Your task to perform on an android device: set the stopwatch Image 0: 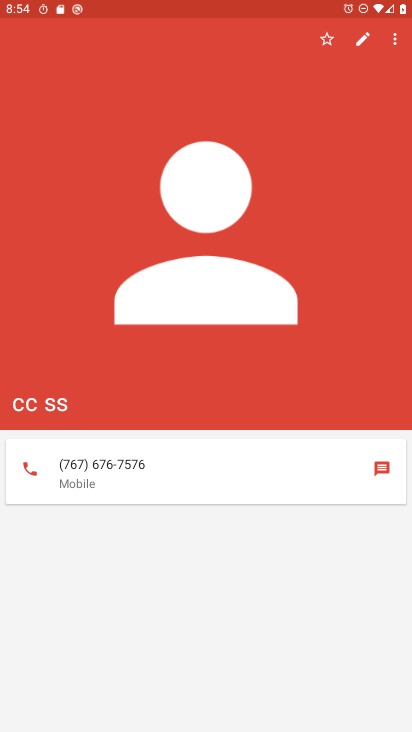
Step 0: press home button
Your task to perform on an android device: set the stopwatch Image 1: 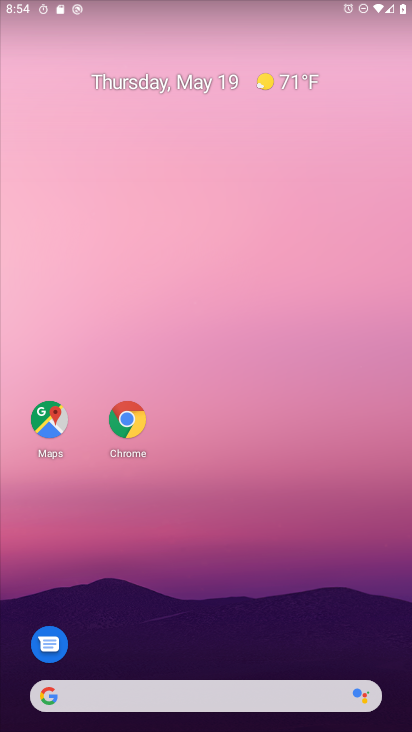
Step 1: drag from (167, 681) to (237, 312)
Your task to perform on an android device: set the stopwatch Image 2: 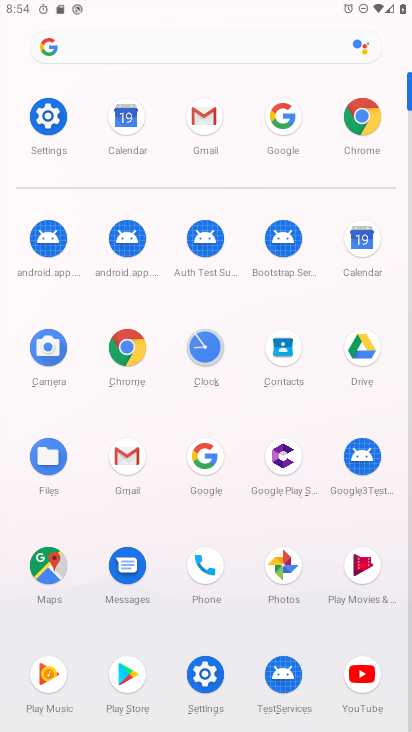
Step 2: click (205, 352)
Your task to perform on an android device: set the stopwatch Image 3: 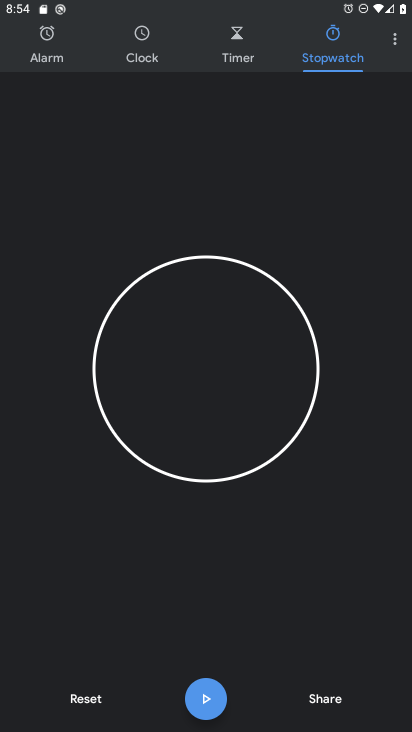
Step 3: click (76, 695)
Your task to perform on an android device: set the stopwatch Image 4: 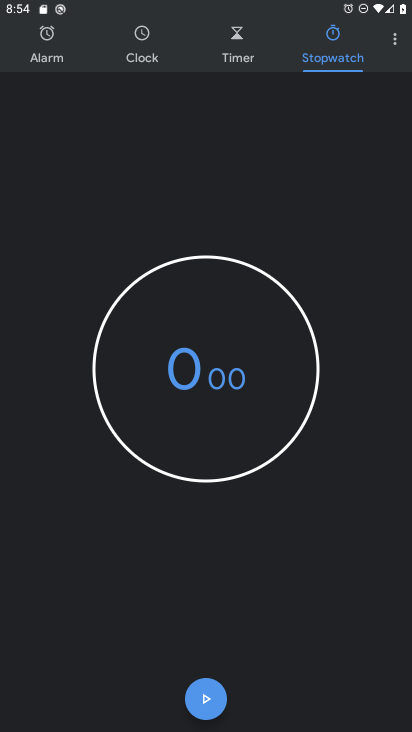
Step 4: click (205, 702)
Your task to perform on an android device: set the stopwatch Image 5: 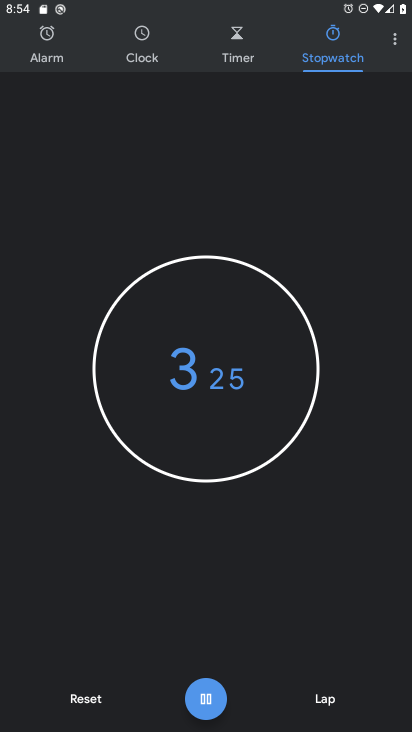
Step 5: click (203, 704)
Your task to perform on an android device: set the stopwatch Image 6: 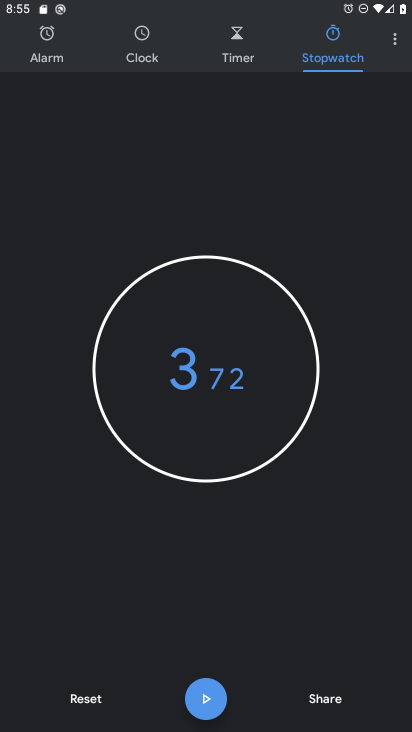
Step 6: task complete